Your task to perform on an android device: turn off notifications in google photos Image 0: 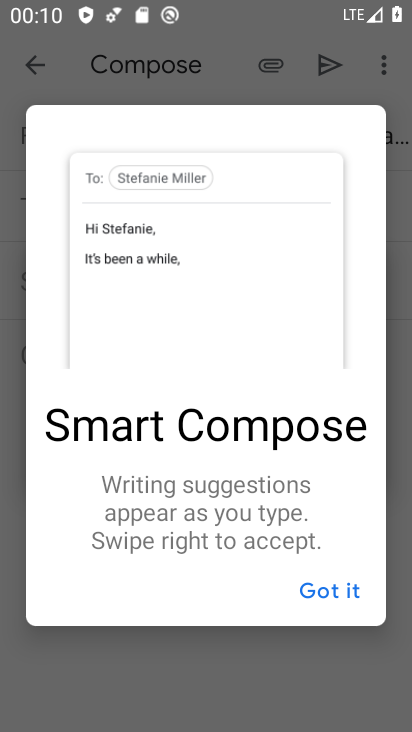
Step 0: press home button
Your task to perform on an android device: turn off notifications in google photos Image 1: 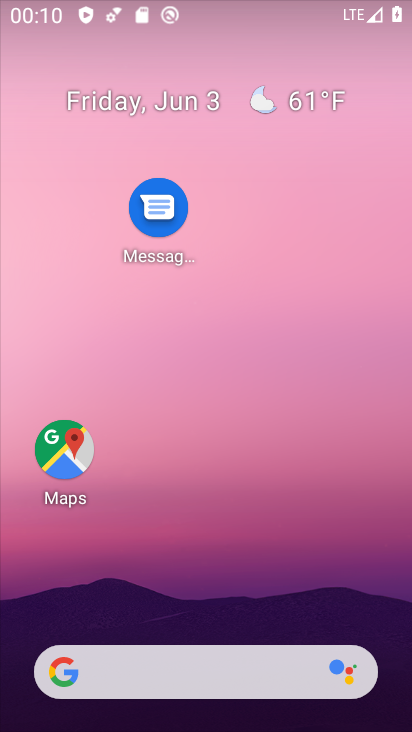
Step 1: drag from (204, 624) to (187, 47)
Your task to perform on an android device: turn off notifications in google photos Image 2: 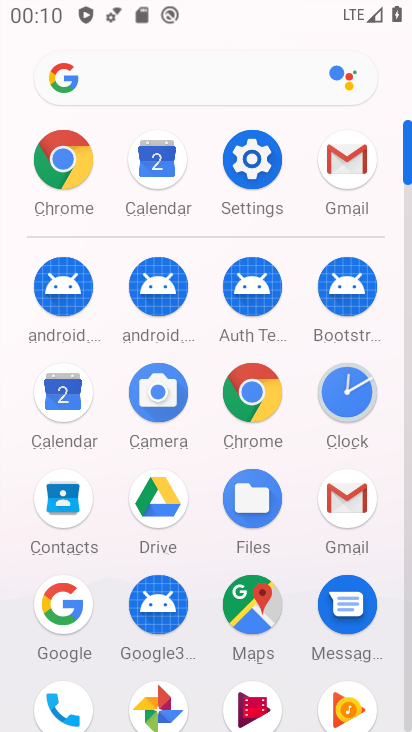
Step 2: click (178, 695)
Your task to perform on an android device: turn off notifications in google photos Image 3: 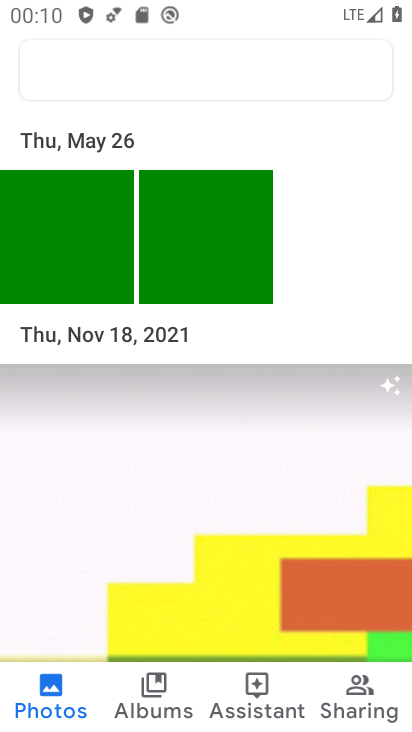
Step 3: click (42, 72)
Your task to perform on an android device: turn off notifications in google photos Image 4: 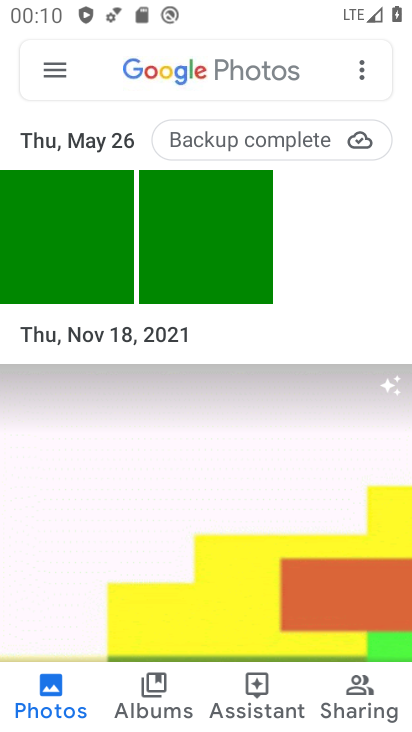
Step 4: click (49, 72)
Your task to perform on an android device: turn off notifications in google photos Image 5: 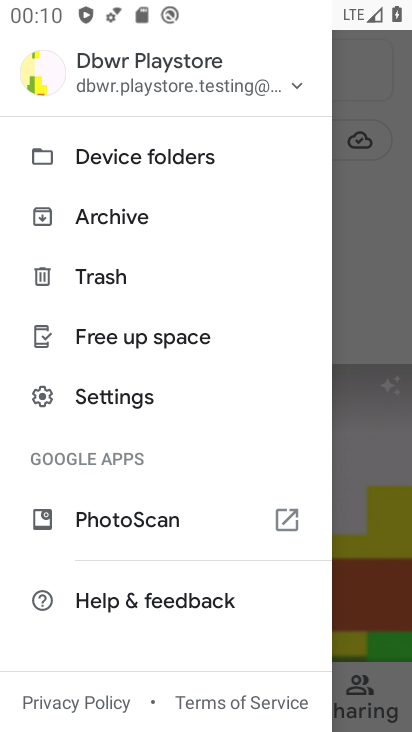
Step 5: drag from (173, 537) to (120, 180)
Your task to perform on an android device: turn off notifications in google photos Image 6: 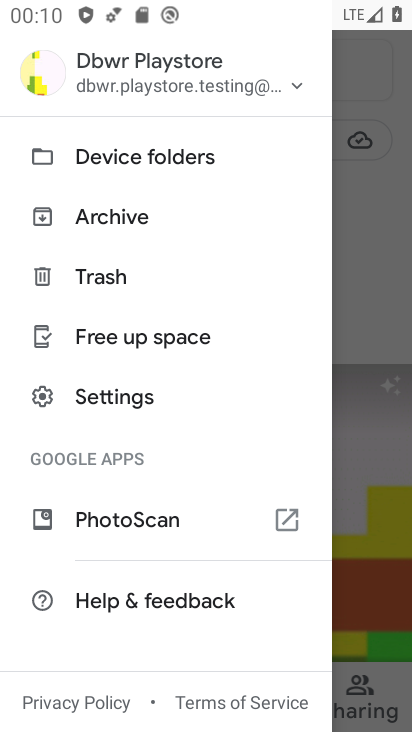
Step 6: click (124, 411)
Your task to perform on an android device: turn off notifications in google photos Image 7: 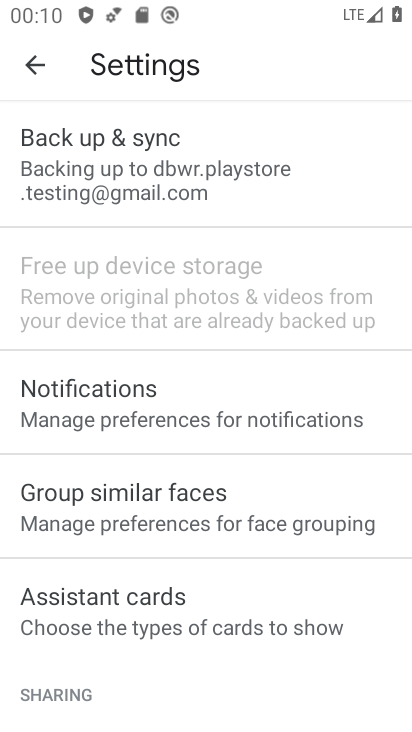
Step 7: click (157, 403)
Your task to perform on an android device: turn off notifications in google photos Image 8: 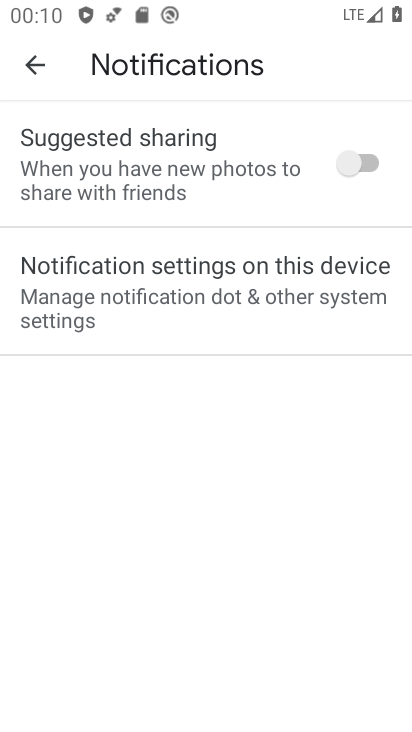
Step 8: click (338, 257)
Your task to perform on an android device: turn off notifications in google photos Image 9: 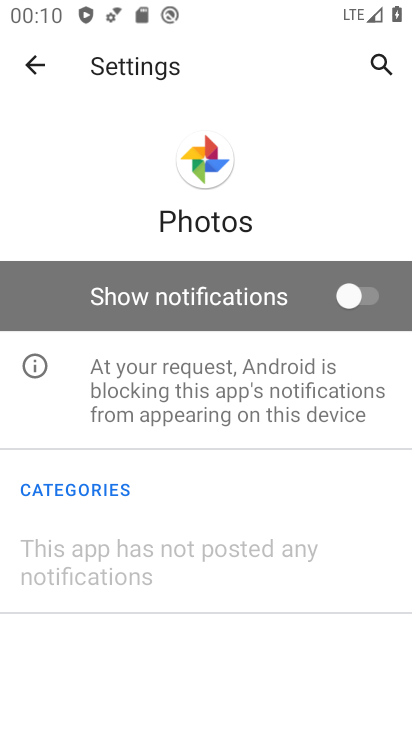
Step 9: task complete